Your task to perform on an android device: What's the weather? Image 0: 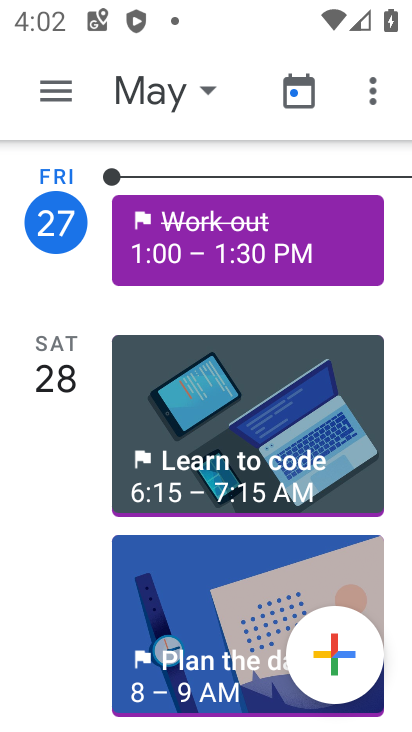
Step 0: press home button
Your task to perform on an android device: What's the weather? Image 1: 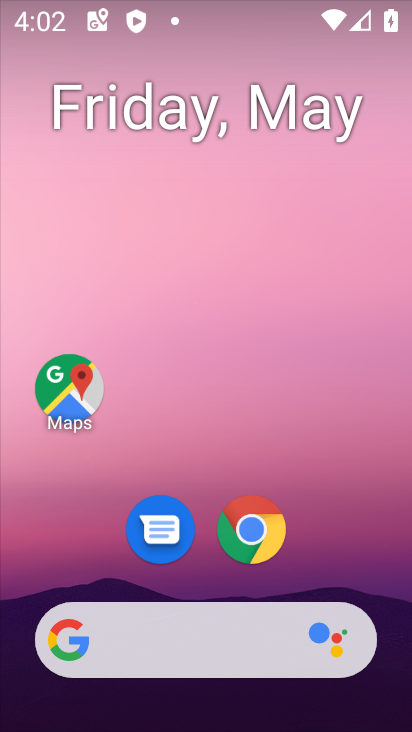
Step 1: drag from (262, 668) to (342, 72)
Your task to perform on an android device: What's the weather? Image 2: 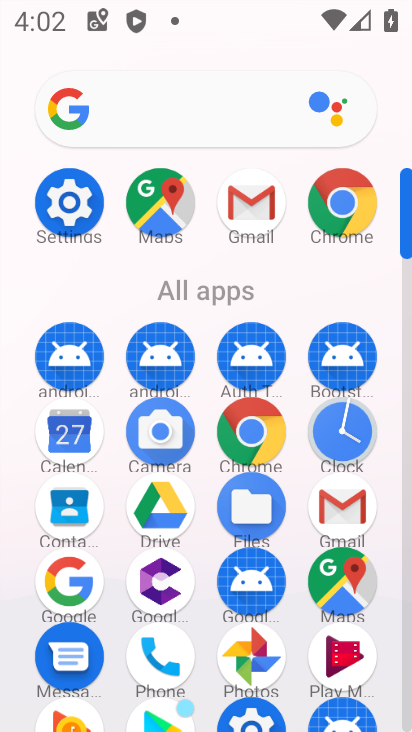
Step 2: drag from (279, 489) to (307, 305)
Your task to perform on an android device: What's the weather? Image 3: 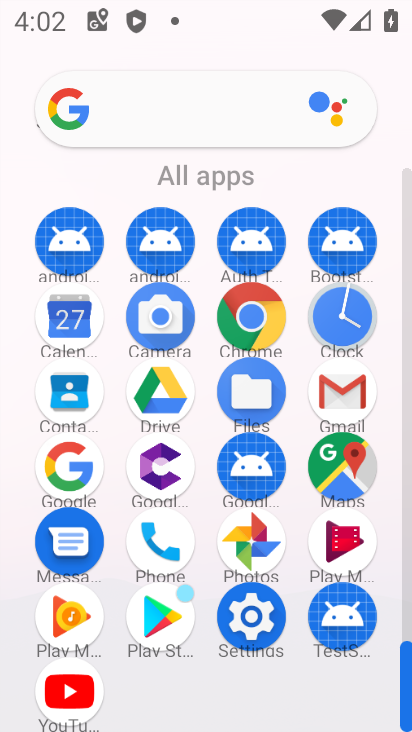
Step 3: click (80, 487)
Your task to perform on an android device: What's the weather? Image 4: 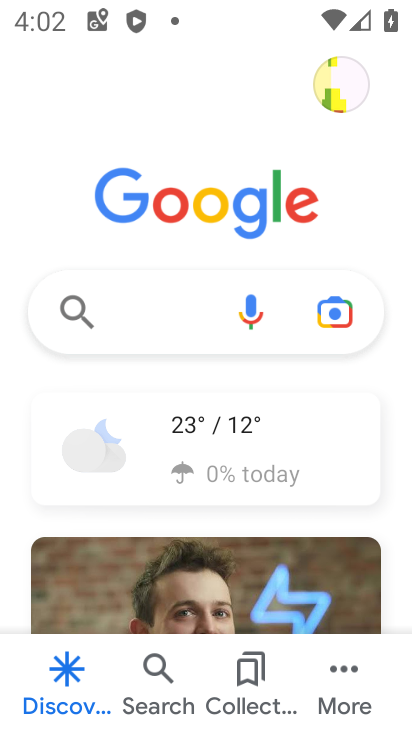
Step 4: click (183, 327)
Your task to perform on an android device: What's the weather? Image 5: 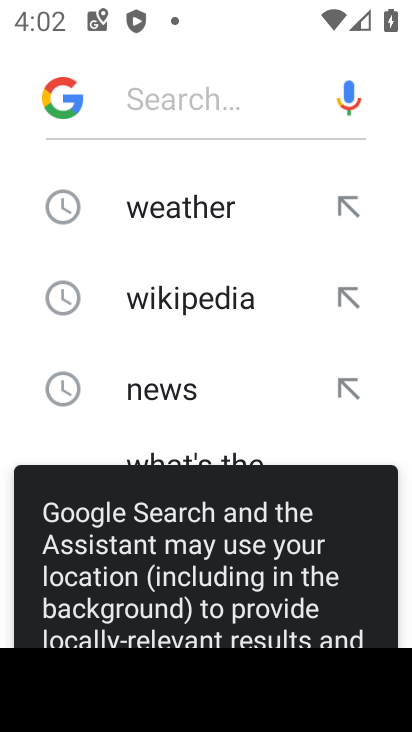
Step 5: click (249, 224)
Your task to perform on an android device: What's the weather? Image 6: 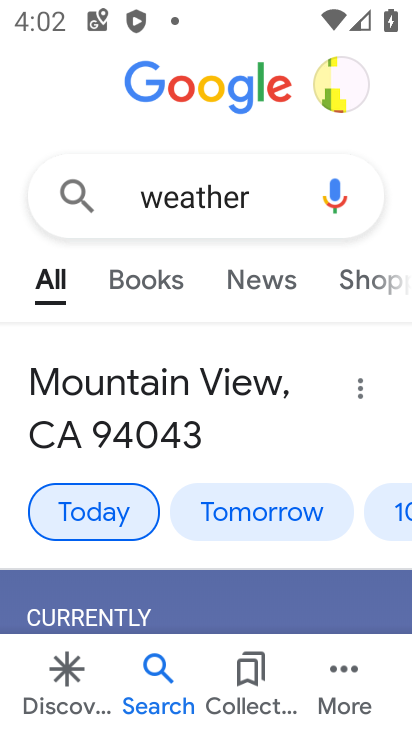
Step 6: task complete